Your task to perform on an android device: move a message to another label in the gmail app Image 0: 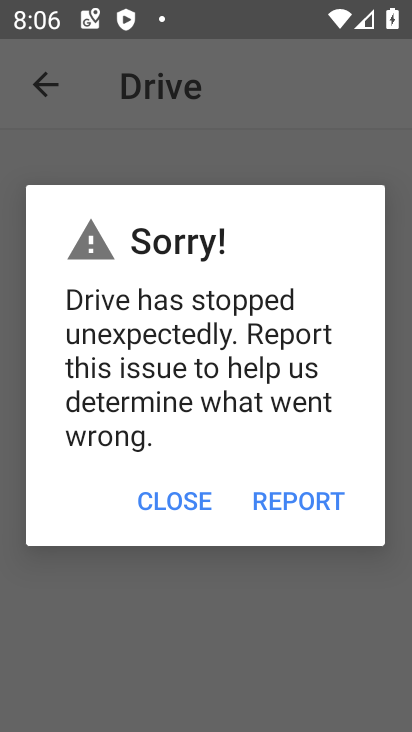
Step 0: press back button
Your task to perform on an android device: move a message to another label in the gmail app Image 1: 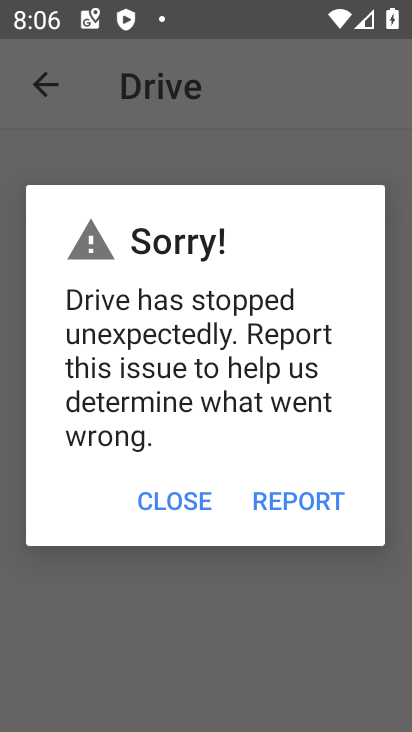
Step 1: press home button
Your task to perform on an android device: move a message to another label in the gmail app Image 2: 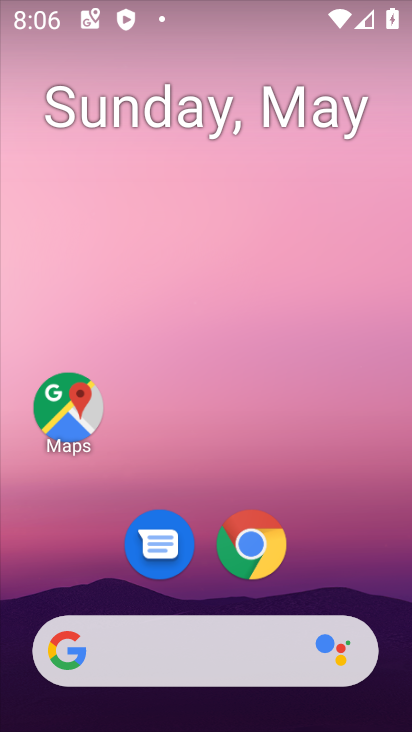
Step 2: drag from (326, 518) to (256, 27)
Your task to perform on an android device: move a message to another label in the gmail app Image 3: 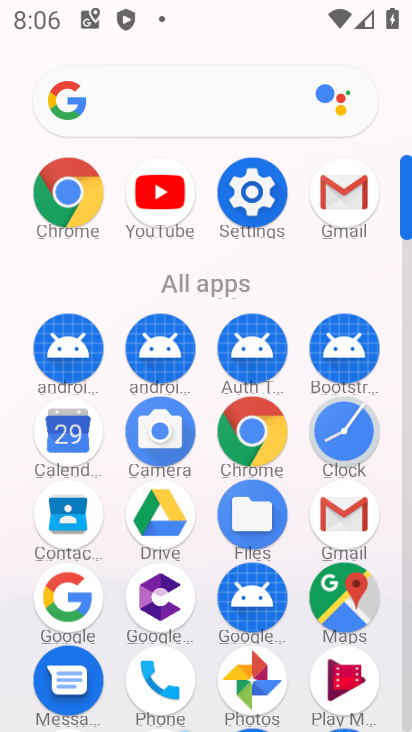
Step 3: click (339, 510)
Your task to perform on an android device: move a message to another label in the gmail app Image 4: 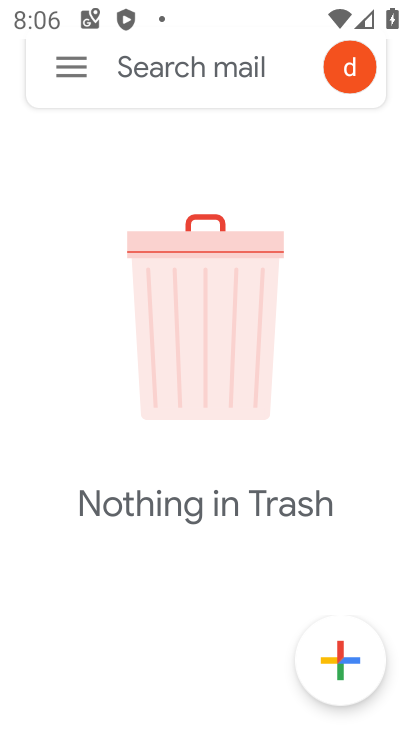
Step 4: click (61, 51)
Your task to perform on an android device: move a message to another label in the gmail app Image 5: 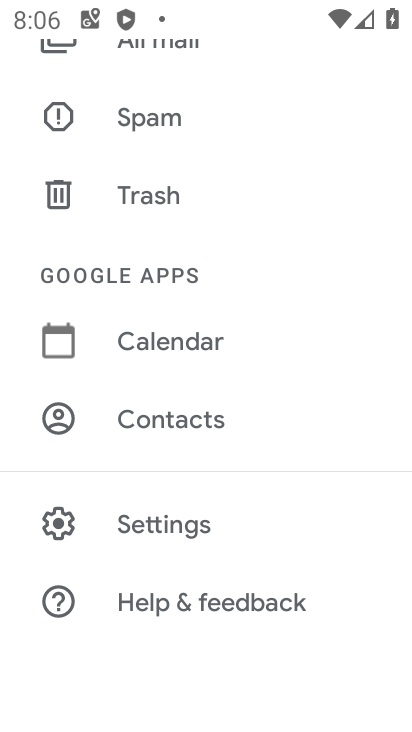
Step 5: drag from (245, 176) to (244, 514)
Your task to perform on an android device: move a message to another label in the gmail app Image 6: 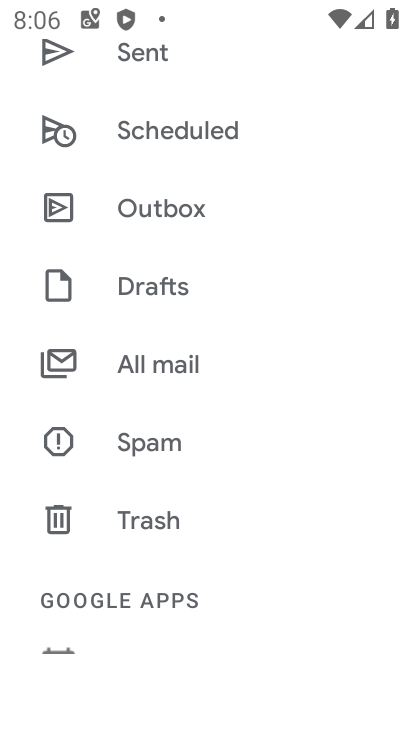
Step 6: click (207, 371)
Your task to perform on an android device: move a message to another label in the gmail app Image 7: 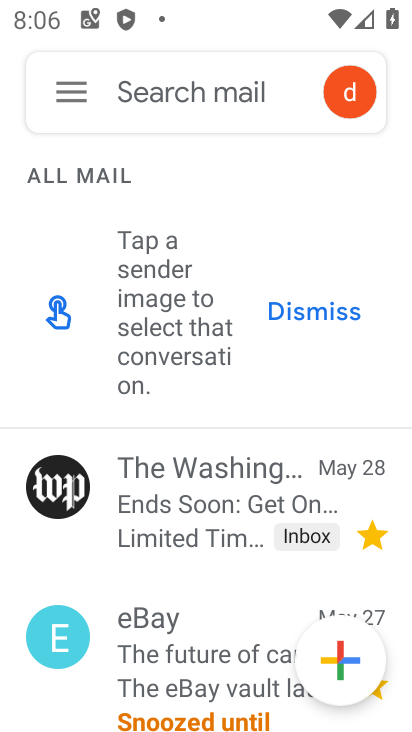
Step 7: click (82, 79)
Your task to perform on an android device: move a message to another label in the gmail app Image 8: 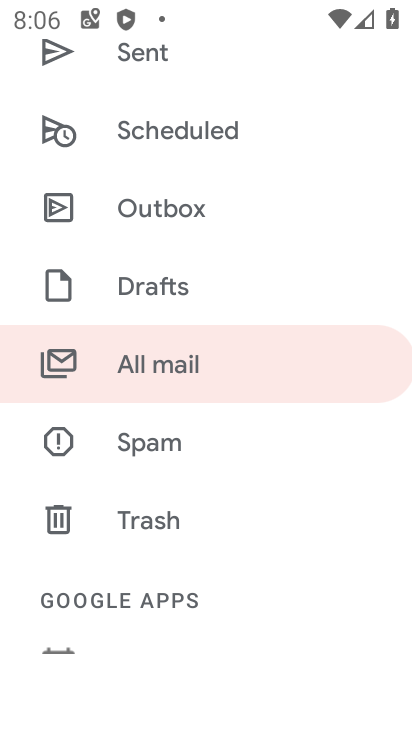
Step 8: drag from (236, 117) to (254, 550)
Your task to perform on an android device: move a message to another label in the gmail app Image 9: 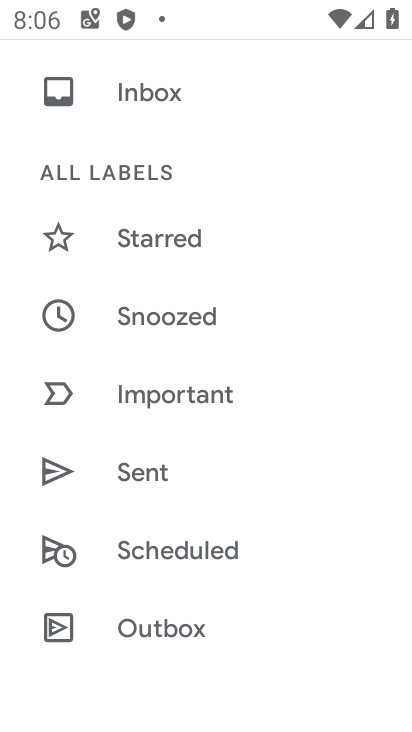
Step 9: click (214, 249)
Your task to perform on an android device: move a message to another label in the gmail app Image 10: 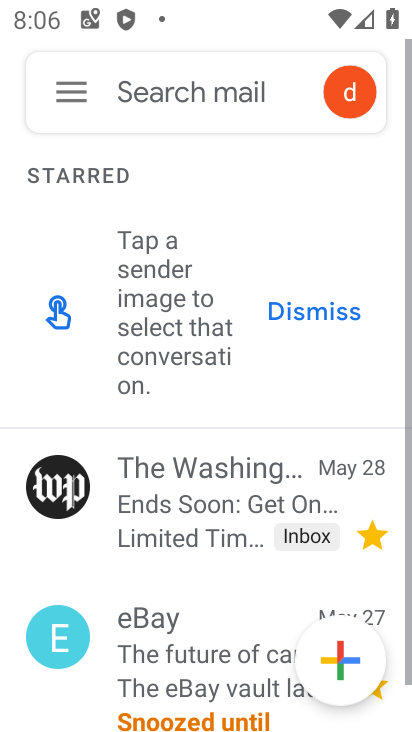
Step 10: click (79, 80)
Your task to perform on an android device: move a message to another label in the gmail app Image 11: 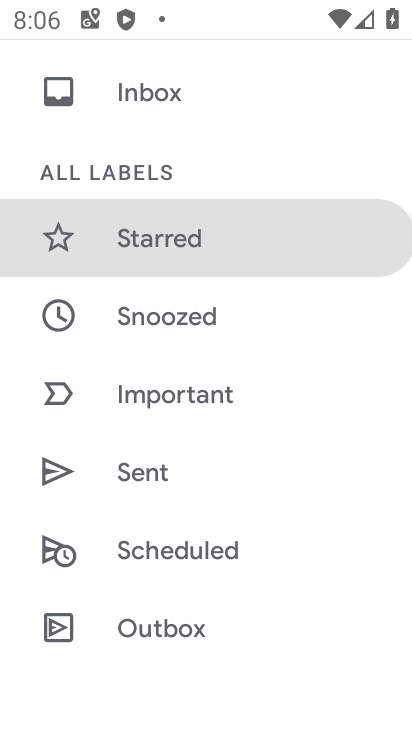
Step 11: click (173, 100)
Your task to perform on an android device: move a message to another label in the gmail app Image 12: 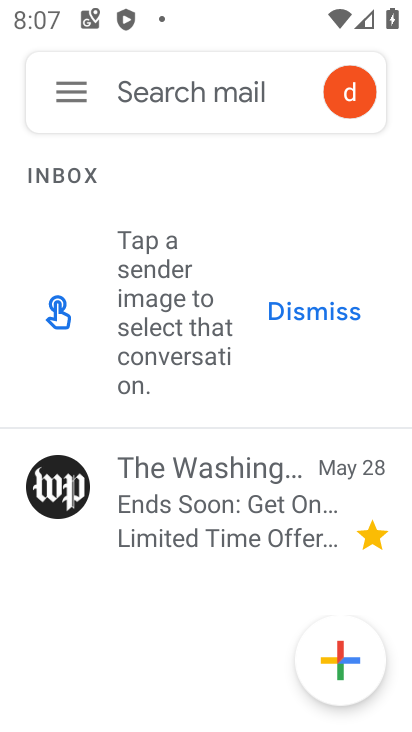
Step 12: click (96, 84)
Your task to perform on an android device: move a message to another label in the gmail app Image 13: 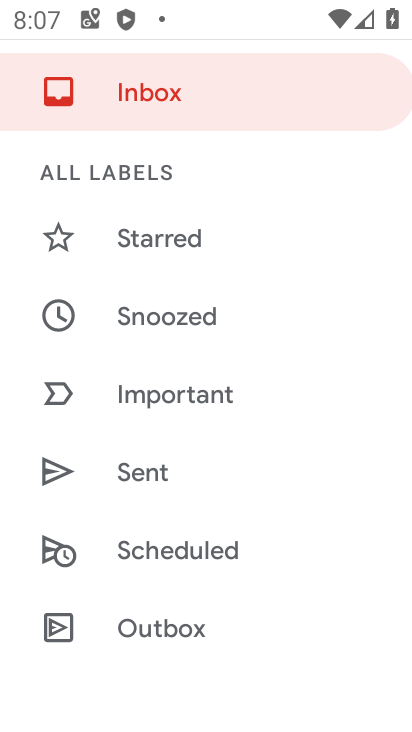
Step 13: drag from (282, 597) to (284, 137)
Your task to perform on an android device: move a message to another label in the gmail app Image 14: 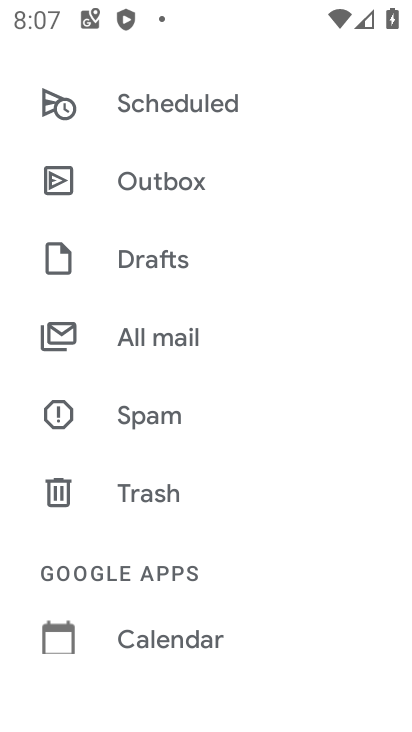
Step 14: drag from (251, 609) to (281, 41)
Your task to perform on an android device: move a message to another label in the gmail app Image 15: 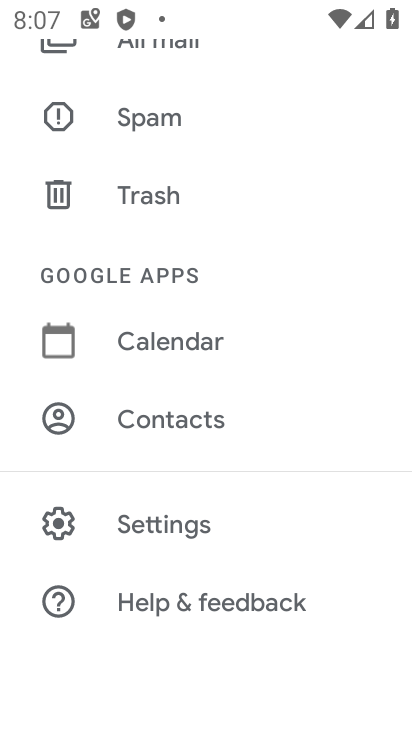
Step 15: drag from (260, 89) to (259, 520)
Your task to perform on an android device: move a message to another label in the gmail app Image 16: 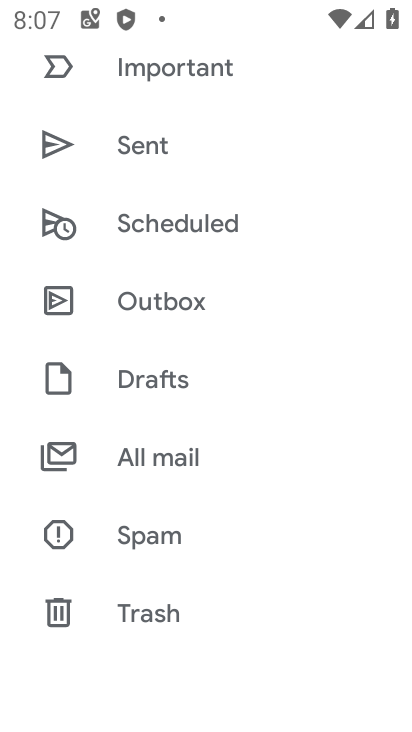
Step 16: click (197, 450)
Your task to perform on an android device: move a message to another label in the gmail app Image 17: 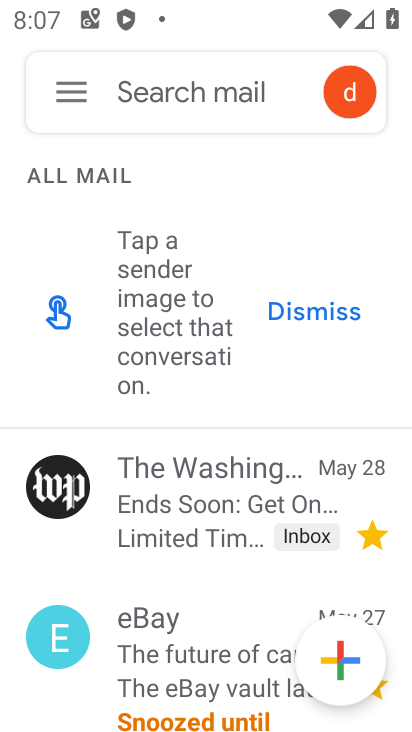
Step 17: click (169, 486)
Your task to perform on an android device: move a message to another label in the gmail app Image 18: 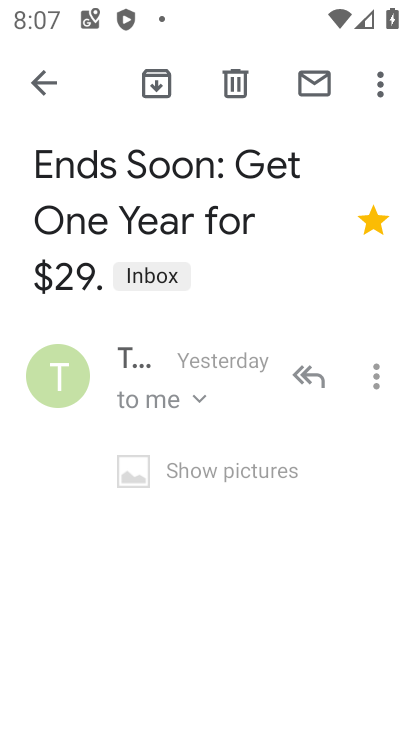
Step 18: click (147, 277)
Your task to perform on an android device: move a message to another label in the gmail app Image 19: 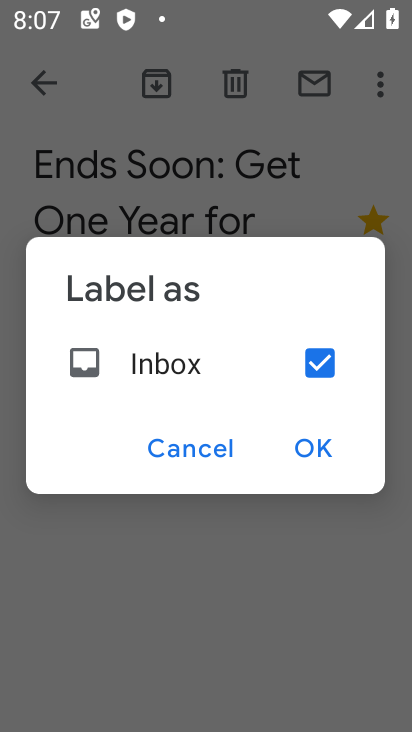
Step 19: click (318, 362)
Your task to perform on an android device: move a message to another label in the gmail app Image 20: 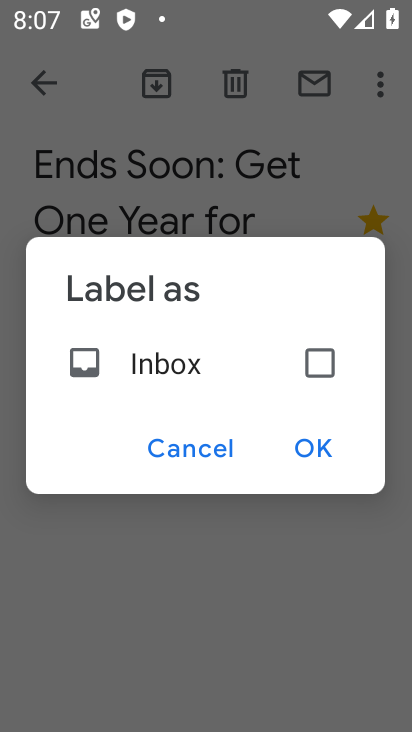
Step 20: click (312, 446)
Your task to perform on an android device: move a message to another label in the gmail app Image 21: 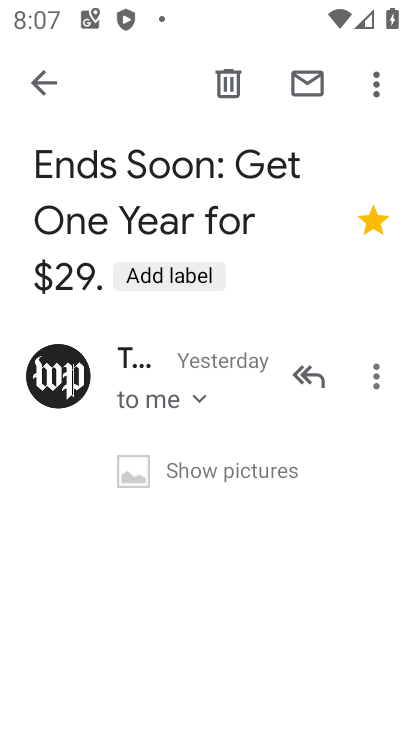
Step 21: task complete